Your task to perform on an android device: Show me popular videos on Youtube Image 0: 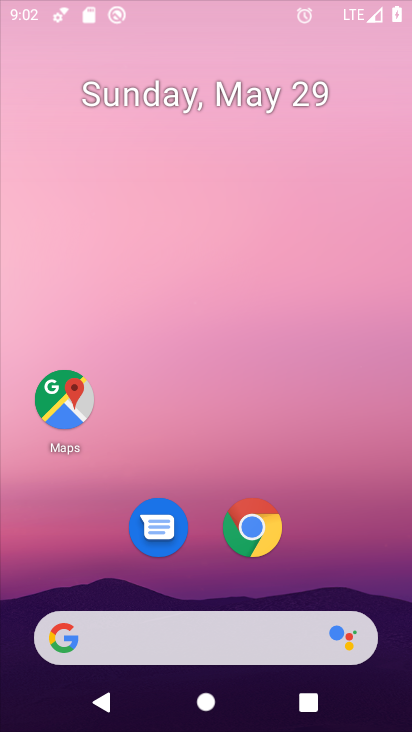
Step 0: press home button
Your task to perform on an android device: Show me popular videos on Youtube Image 1: 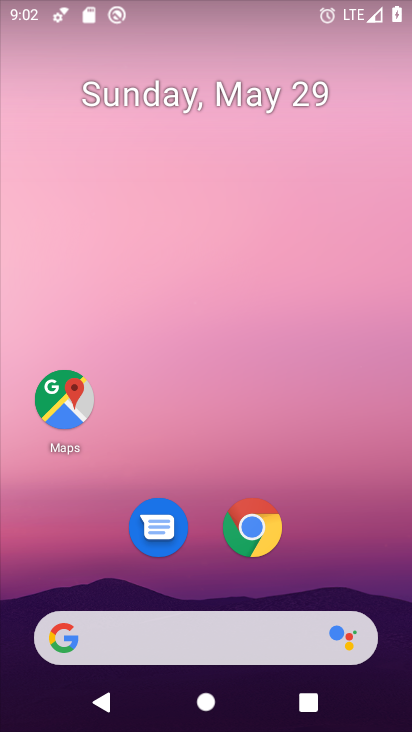
Step 1: drag from (203, 579) to (238, 96)
Your task to perform on an android device: Show me popular videos on Youtube Image 2: 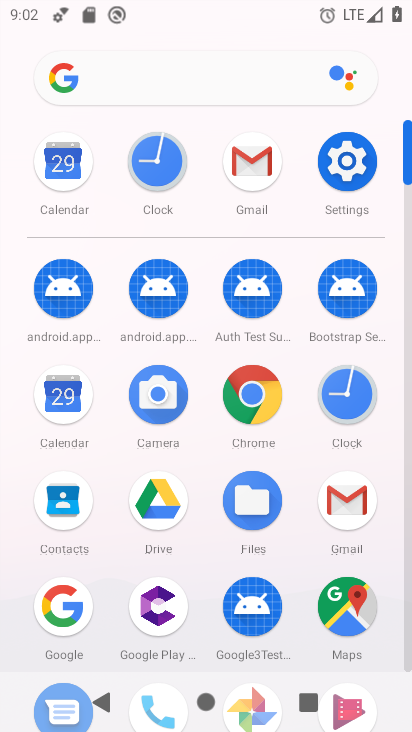
Step 2: click (205, 574)
Your task to perform on an android device: Show me popular videos on Youtube Image 3: 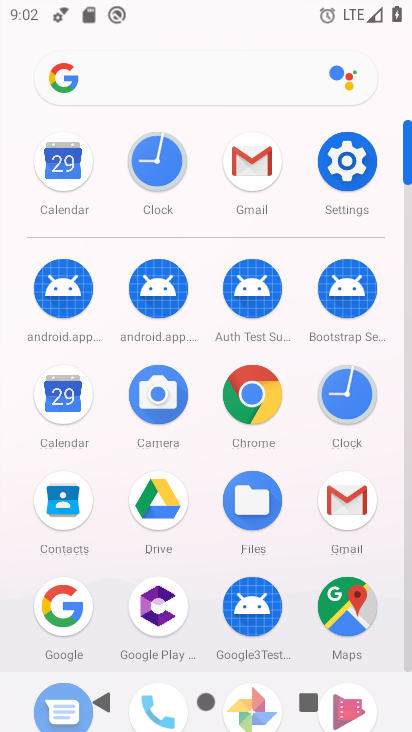
Step 3: drag from (203, 417) to (203, 143)
Your task to perform on an android device: Show me popular videos on Youtube Image 4: 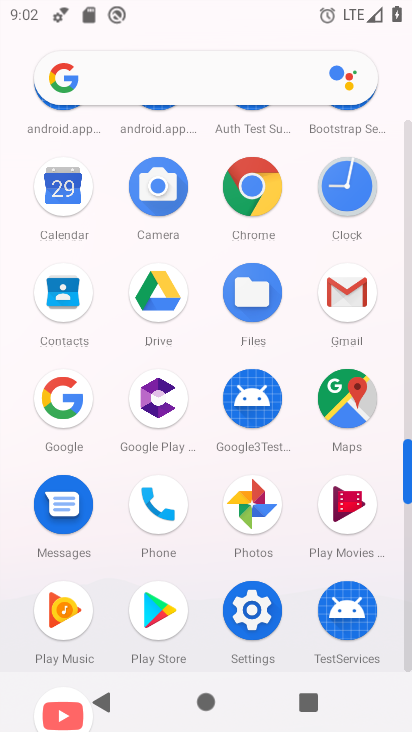
Step 4: drag from (209, 556) to (203, 181)
Your task to perform on an android device: Show me popular videos on Youtube Image 5: 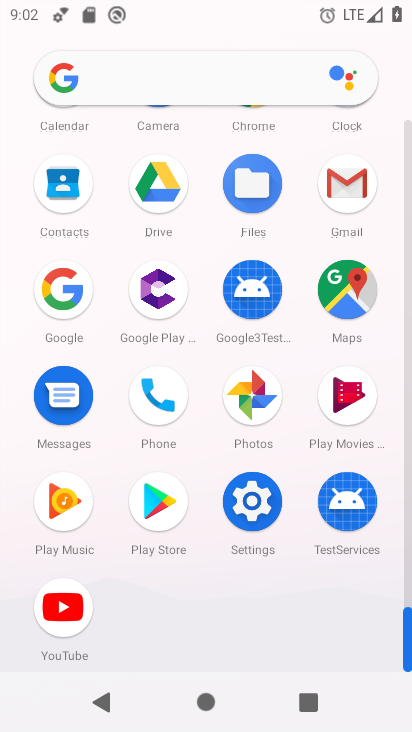
Step 5: click (62, 599)
Your task to perform on an android device: Show me popular videos on Youtube Image 6: 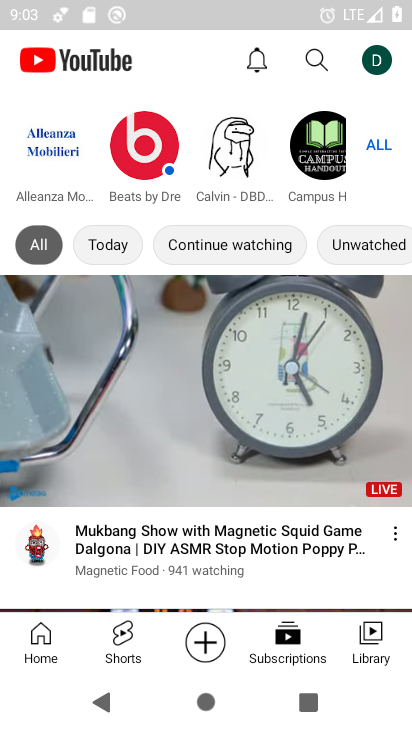
Step 6: click (37, 636)
Your task to perform on an android device: Show me popular videos on Youtube Image 7: 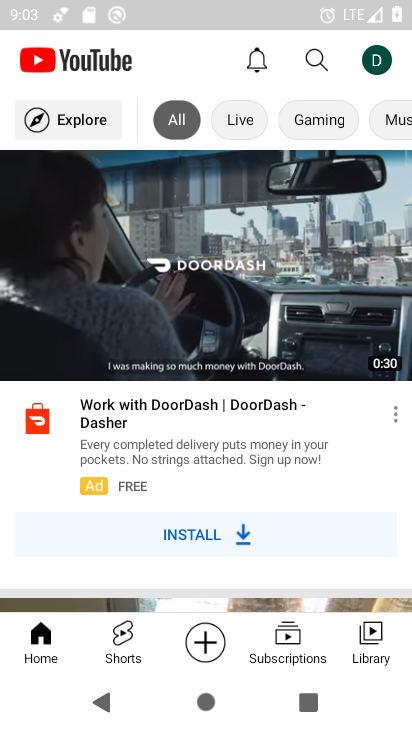
Step 7: drag from (193, 584) to (220, 214)
Your task to perform on an android device: Show me popular videos on Youtube Image 8: 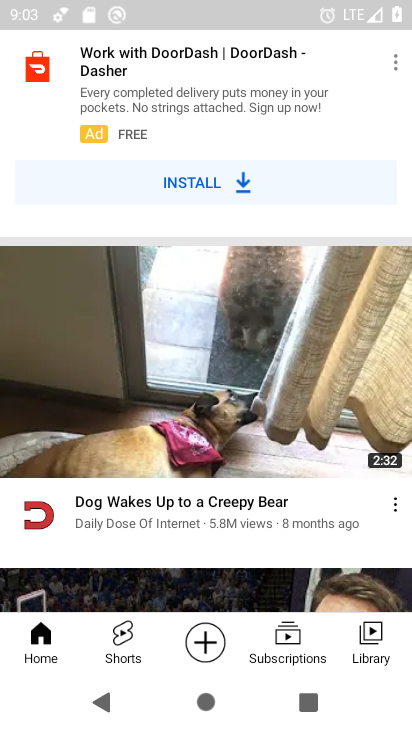
Step 8: drag from (196, 193) to (200, 462)
Your task to perform on an android device: Show me popular videos on Youtube Image 9: 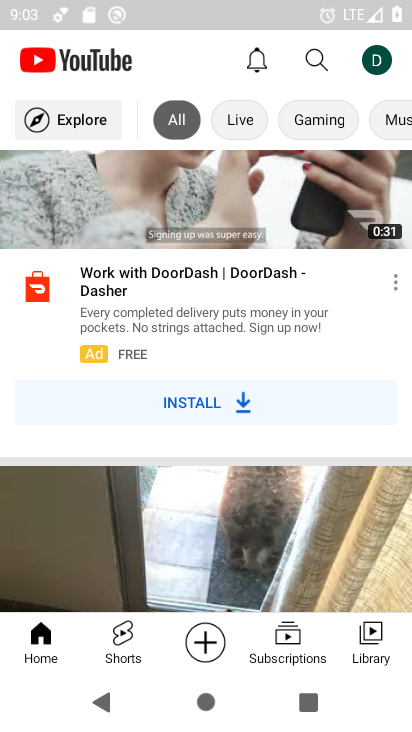
Step 9: click (70, 117)
Your task to perform on an android device: Show me popular videos on Youtube Image 10: 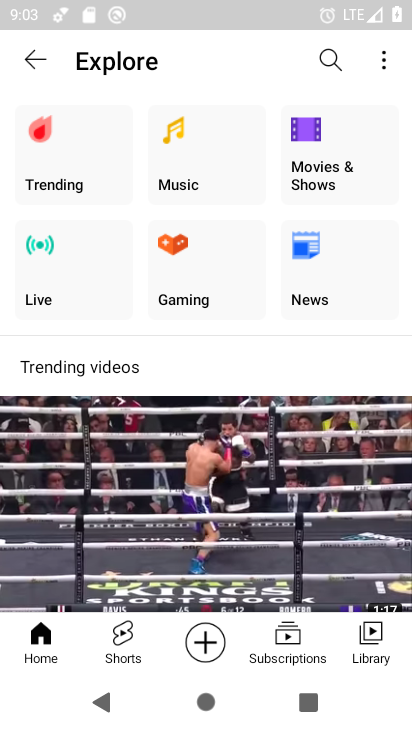
Step 10: click (64, 139)
Your task to perform on an android device: Show me popular videos on Youtube Image 11: 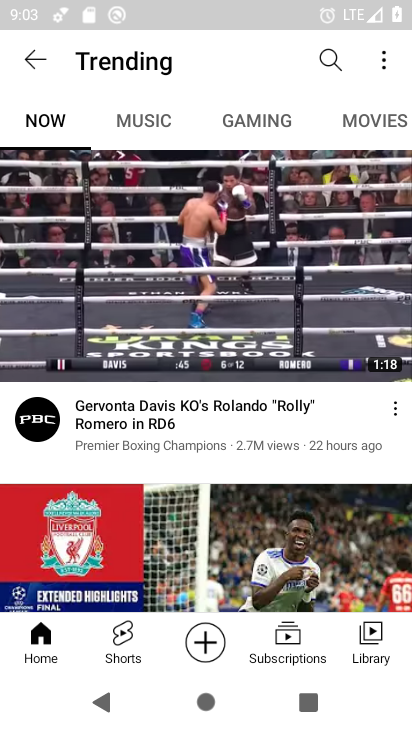
Step 11: task complete